Your task to perform on an android device: delete a single message in the gmail app Image 0: 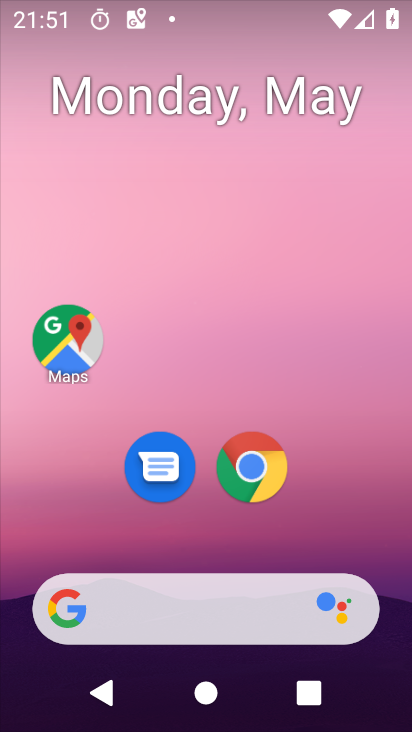
Step 0: drag from (240, 653) to (249, 173)
Your task to perform on an android device: delete a single message in the gmail app Image 1: 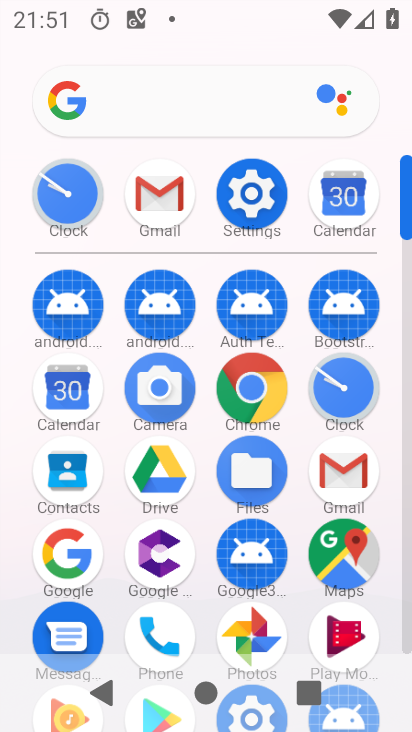
Step 1: click (170, 210)
Your task to perform on an android device: delete a single message in the gmail app Image 2: 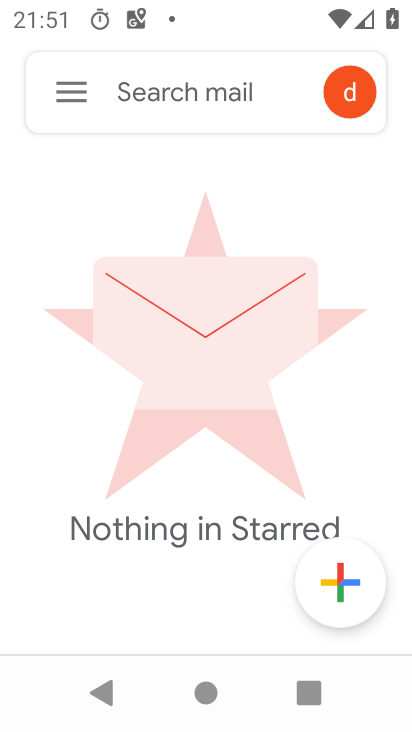
Step 2: click (73, 95)
Your task to perform on an android device: delete a single message in the gmail app Image 3: 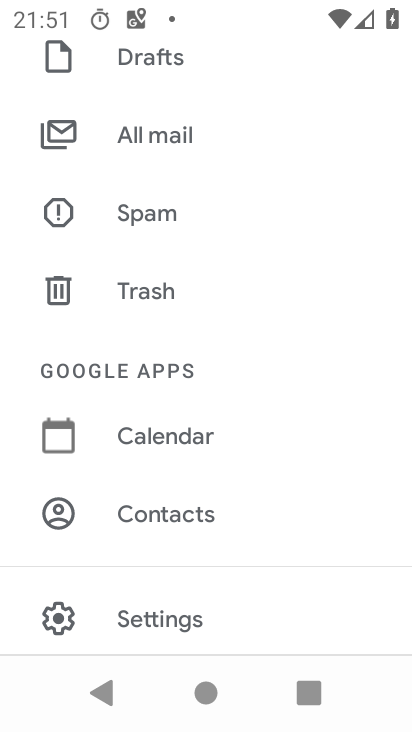
Step 3: click (137, 127)
Your task to perform on an android device: delete a single message in the gmail app Image 4: 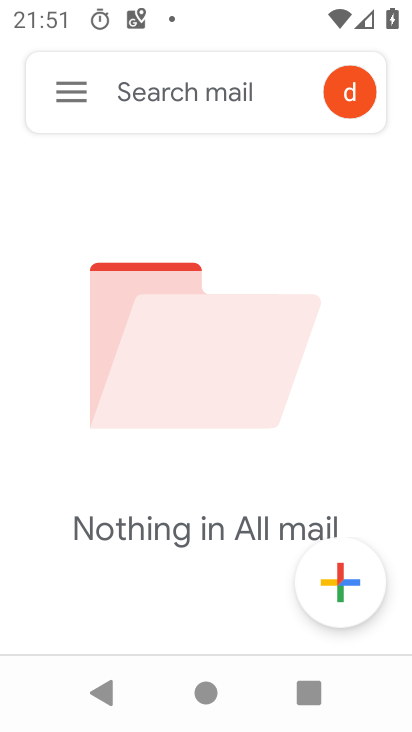
Step 4: task complete